Your task to perform on an android device: toggle data saver in the chrome app Image 0: 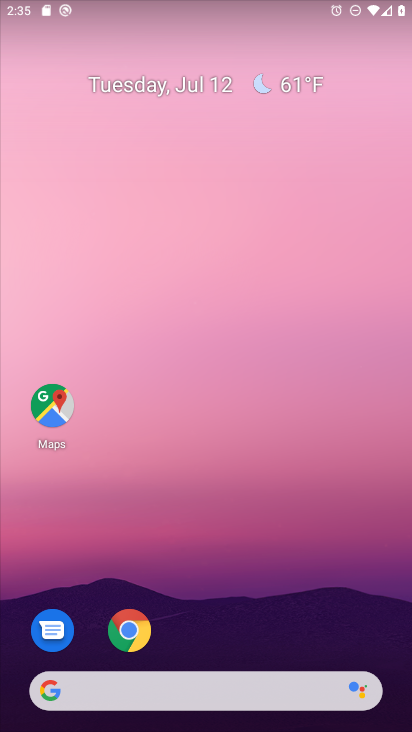
Step 0: click (128, 626)
Your task to perform on an android device: toggle data saver in the chrome app Image 1: 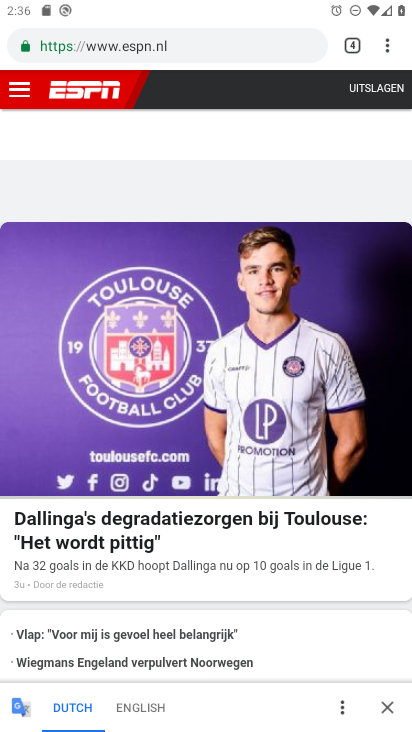
Step 1: click (390, 46)
Your task to perform on an android device: toggle data saver in the chrome app Image 2: 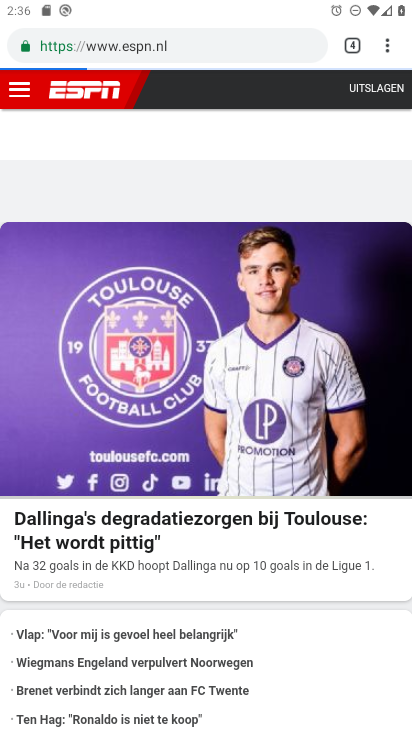
Step 2: click (390, 46)
Your task to perform on an android device: toggle data saver in the chrome app Image 3: 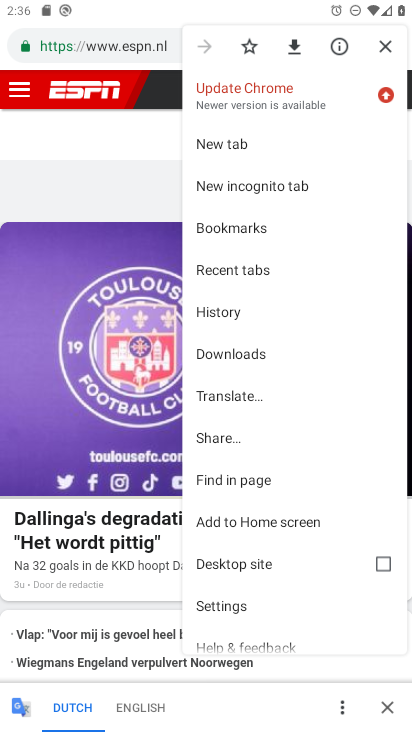
Step 3: click (259, 611)
Your task to perform on an android device: toggle data saver in the chrome app Image 4: 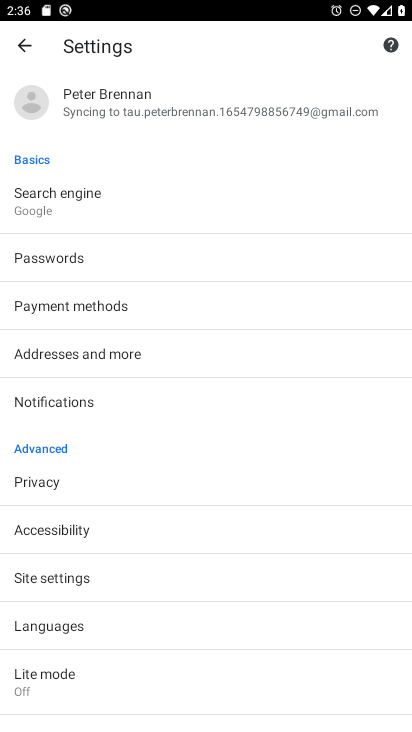
Step 4: click (40, 686)
Your task to perform on an android device: toggle data saver in the chrome app Image 5: 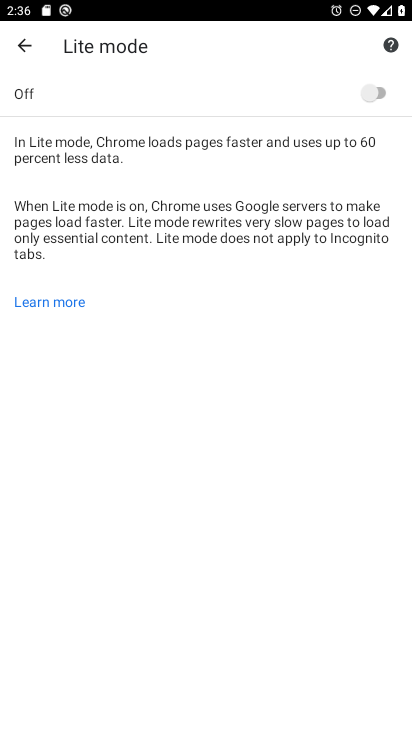
Step 5: click (385, 94)
Your task to perform on an android device: toggle data saver in the chrome app Image 6: 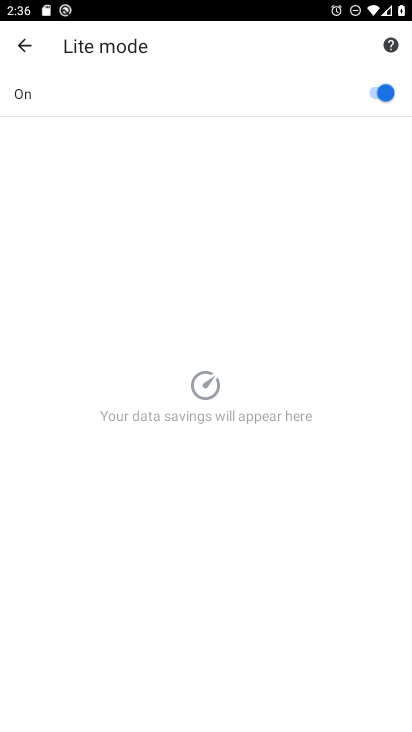
Step 6: task complete